Your task to perform on an android device: Play the last video I watched on Youtube Image 0: 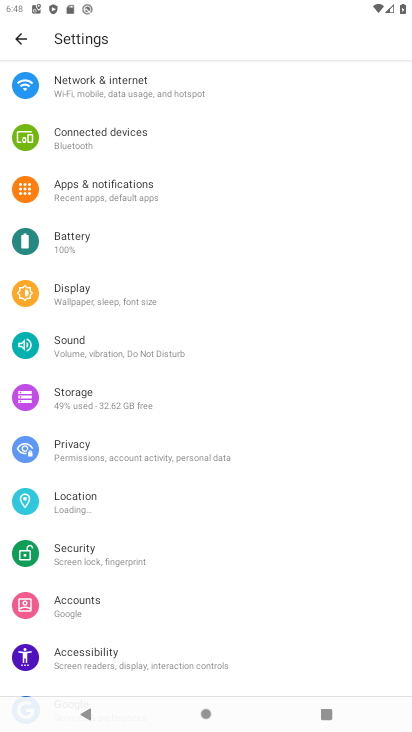
Step 0: press home button
Your task to perform on an android device: Play the last video I watched on Youtube Image 1: 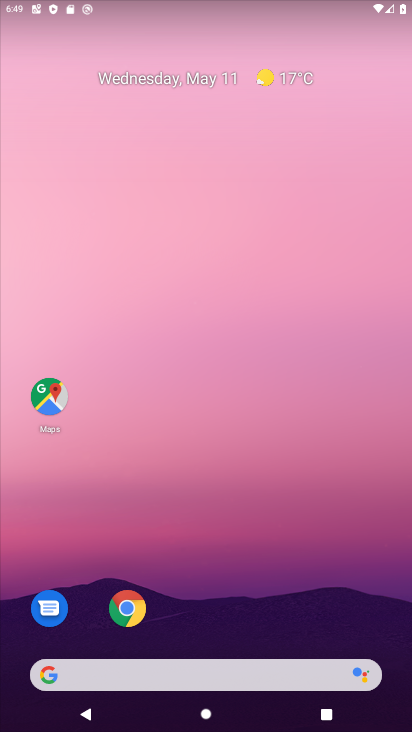
Step 1: drag from (254, 631) to (240, 219)
Your task to perform on an android device: Play the last video I watched on Youtube Image 2: 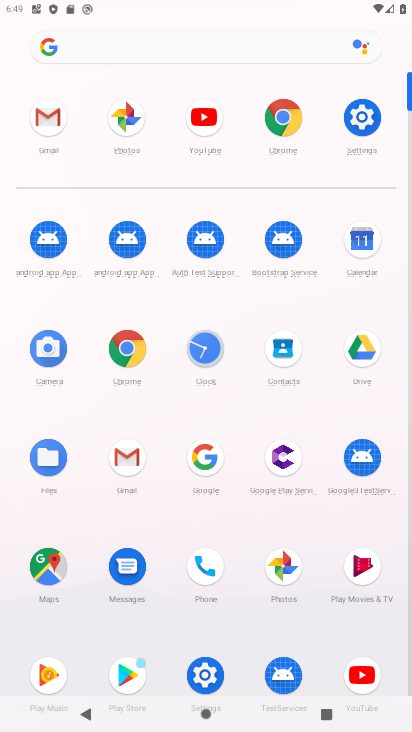
Step 2: click (367, 160)
Your task to perform on an android device: Play the last video I watched on Youtube Image 3: 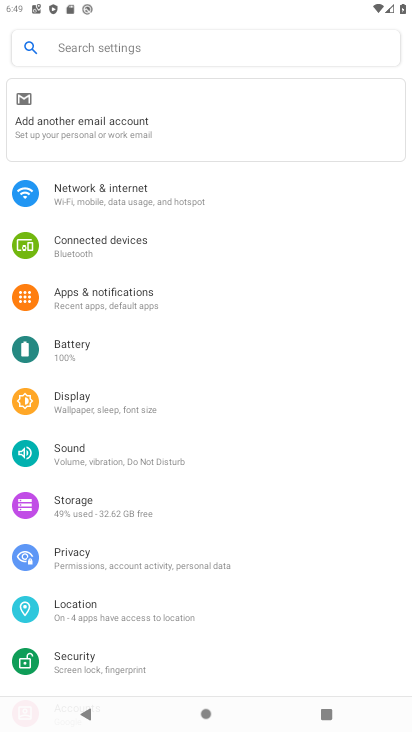
Step 3: press home button
Your task to perform on an android device: Play the last video I watched on Youtube Image 4: 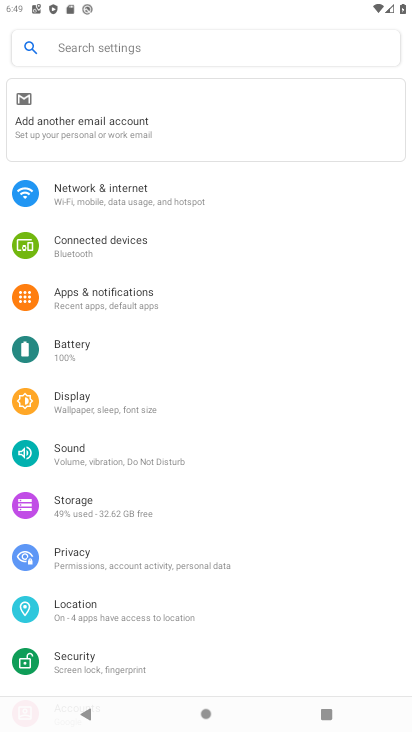
Step 4: press home button
Your task to perform on an android device: Play the last video I watched on Youtube Image 5: 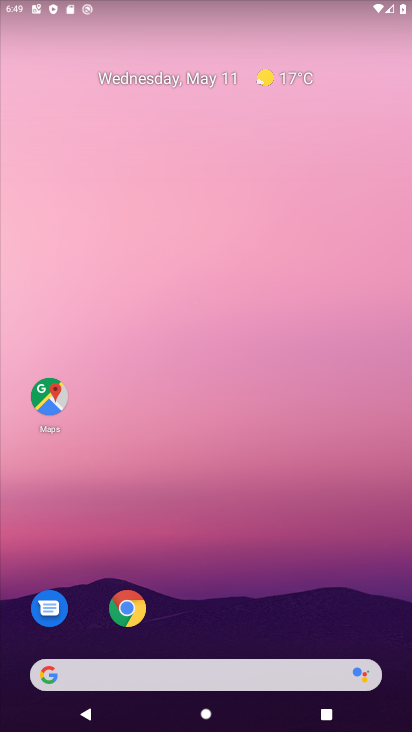
Step 5: drag from (343, 628) to (292, 98)
Your task to perform on an android device: Play the last video I watched on Youtube Image 6: 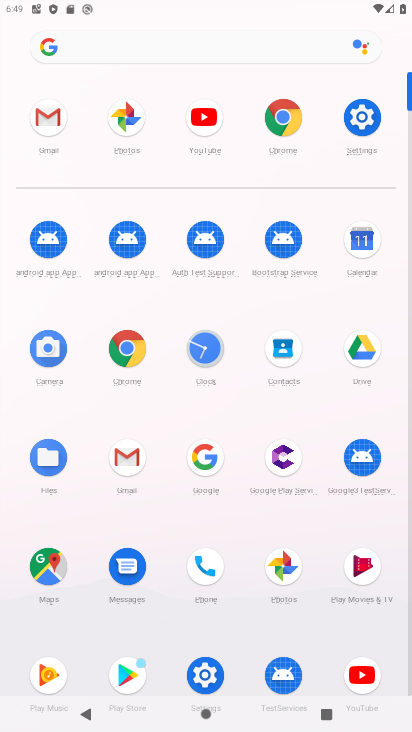
Step 6: click (364, 677)
Your task to perform on an android device: Play the last video I watched on Youtube Image 7: 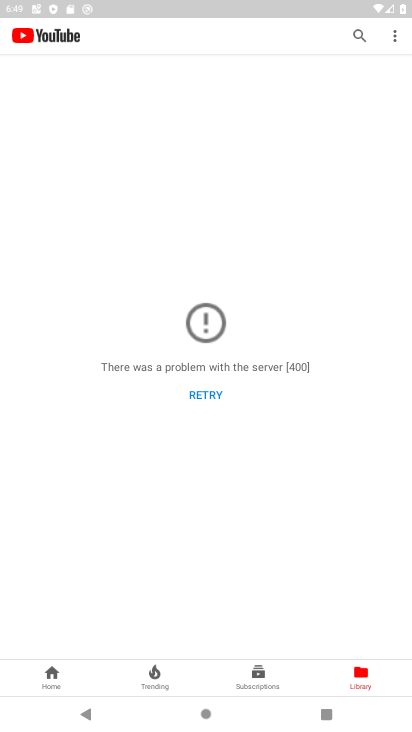
Step 7: task complete